Your task to perform on an android device: What is the recent news? Image 0: 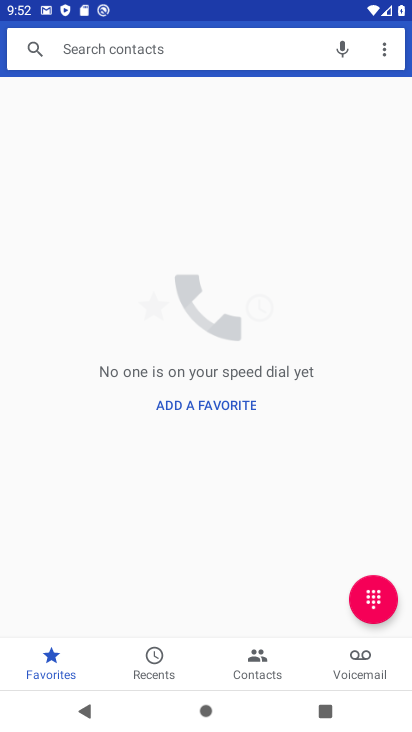
Step 0: press home button
Your task to perform on an android device: What is the recent news? Image 1: 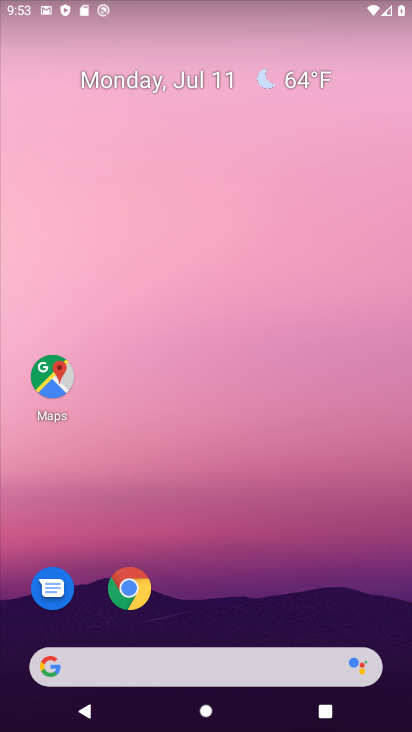
Step 1: task complete